Your task to perform on an android device: Open privacy settings Image 0: 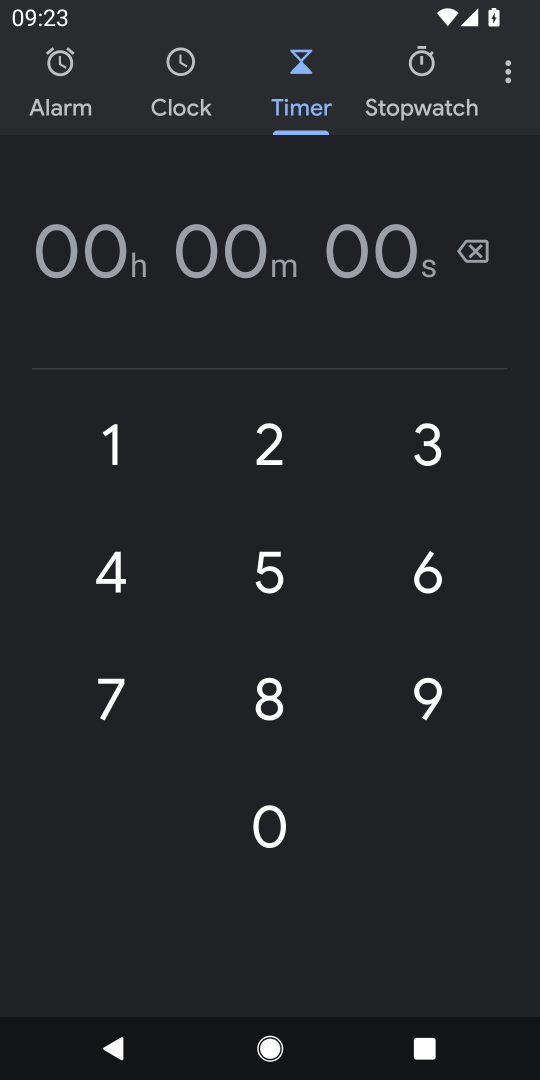
Step 0: press home button
Your task to perform on an android device: Open privacy settings Image 1: 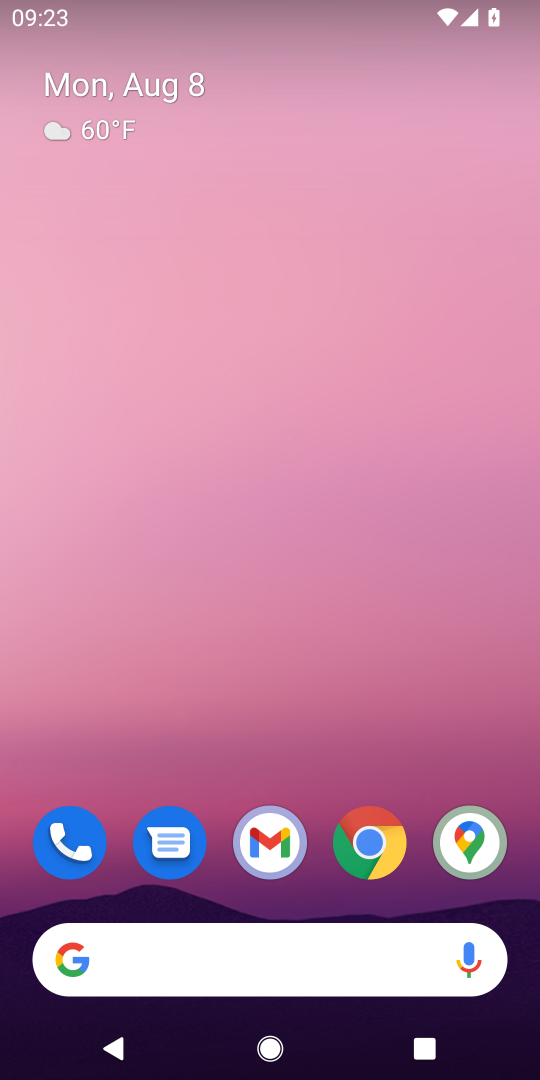
Step 1: drag from (270, 769) to (273, 221)
Your task to perform on an android device: Open privacy settings Image 2: 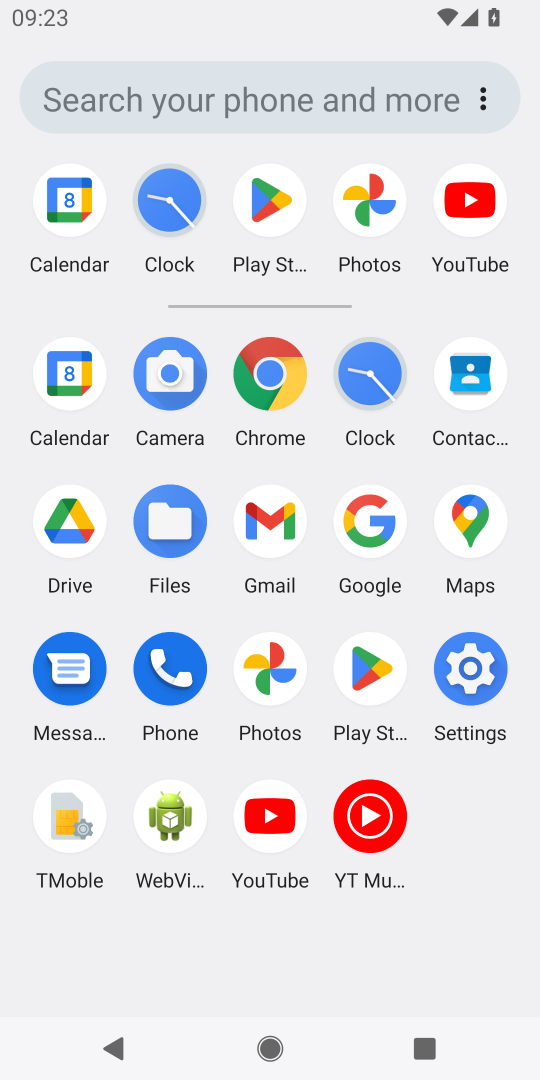
Step 2: click (485, 662)
Your task to perform on an android device: Open privacy settings Image 3: 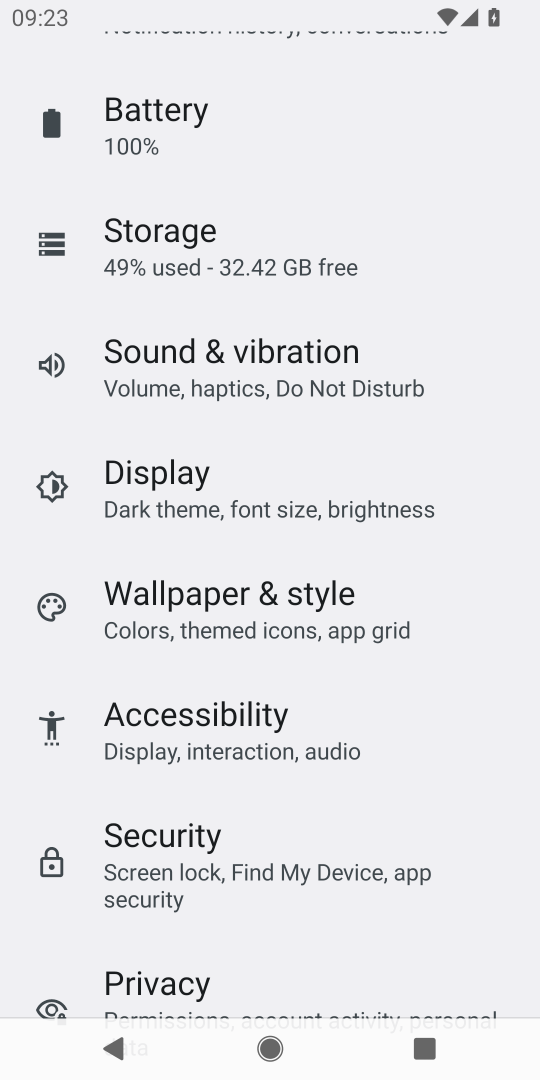
Step 3: click (212, 966)
Your task to perform on an android device: Open privacy settings Image 4: 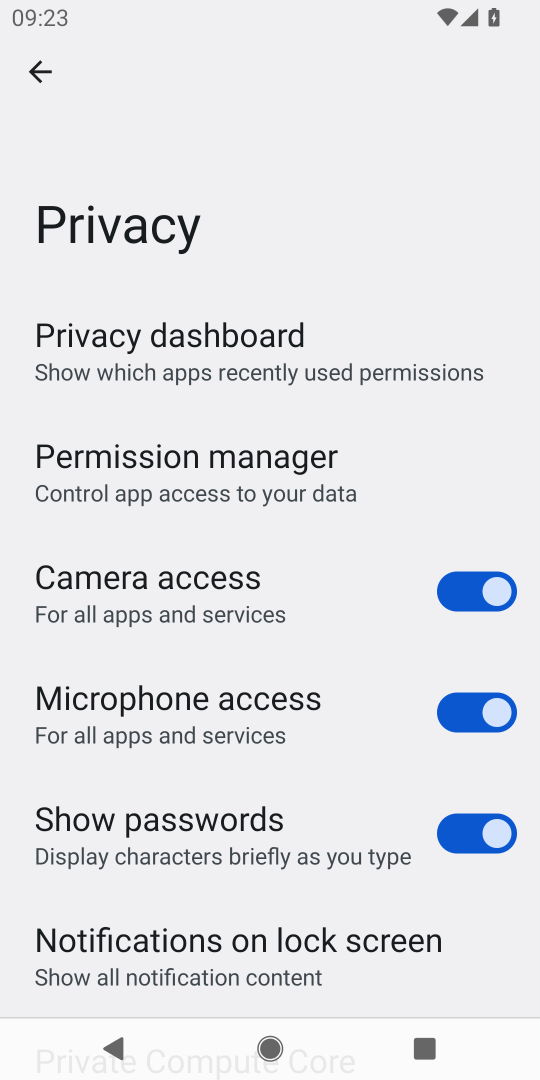
Step 4: task complete